Your task to perform on an android device: check the backup settings in the google photos Image 0: 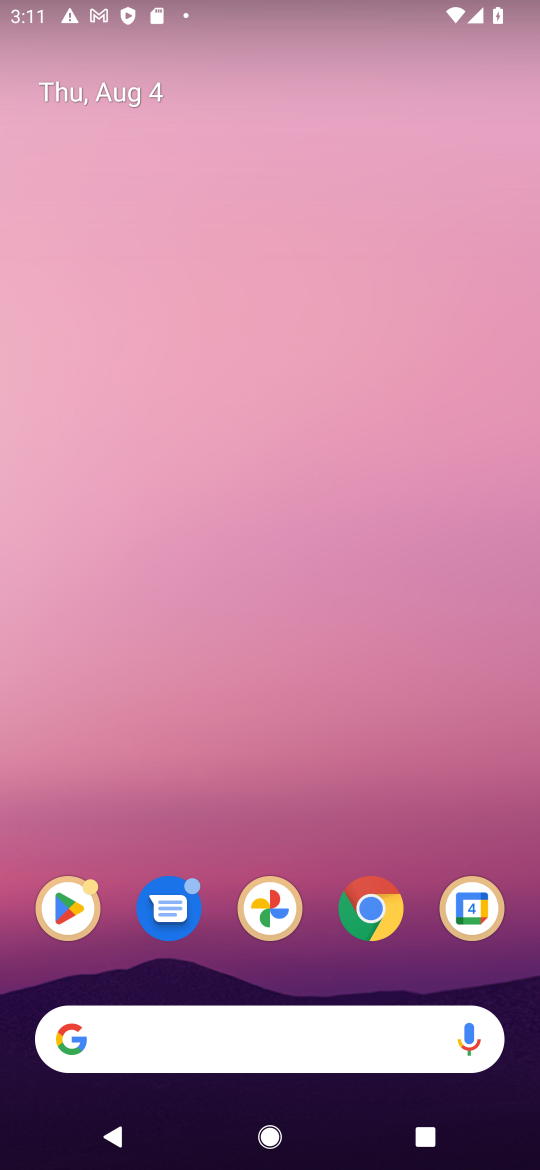
Step 0: drag from (218, 610) to (357, 45)
Your task to perform on an android device: check the backup settings in the google photos Image 1: 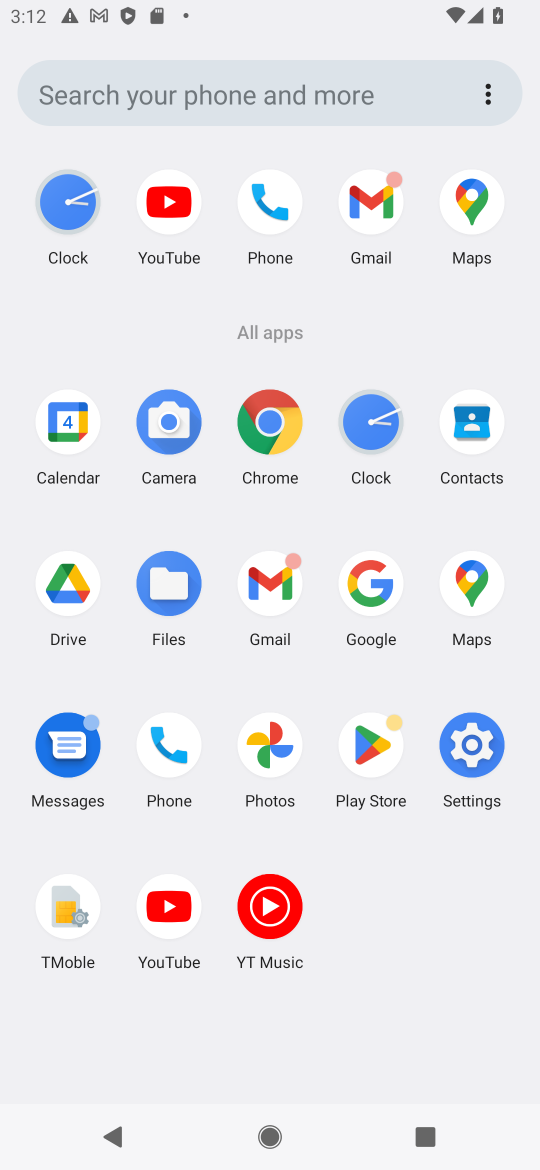
Step 1: click (276, 734)
Your task to perform on an android device: check the backup settings in the google photos Image 2: 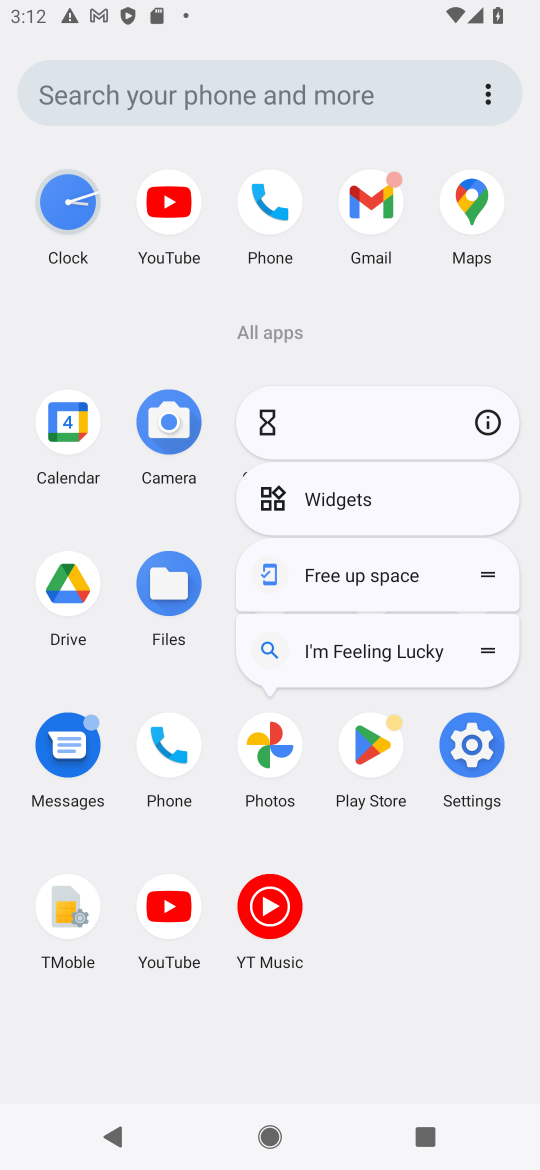
Step 2: click (280, 746)
Your task to perform on an android device: check the backup settings in the google photos Image 3: 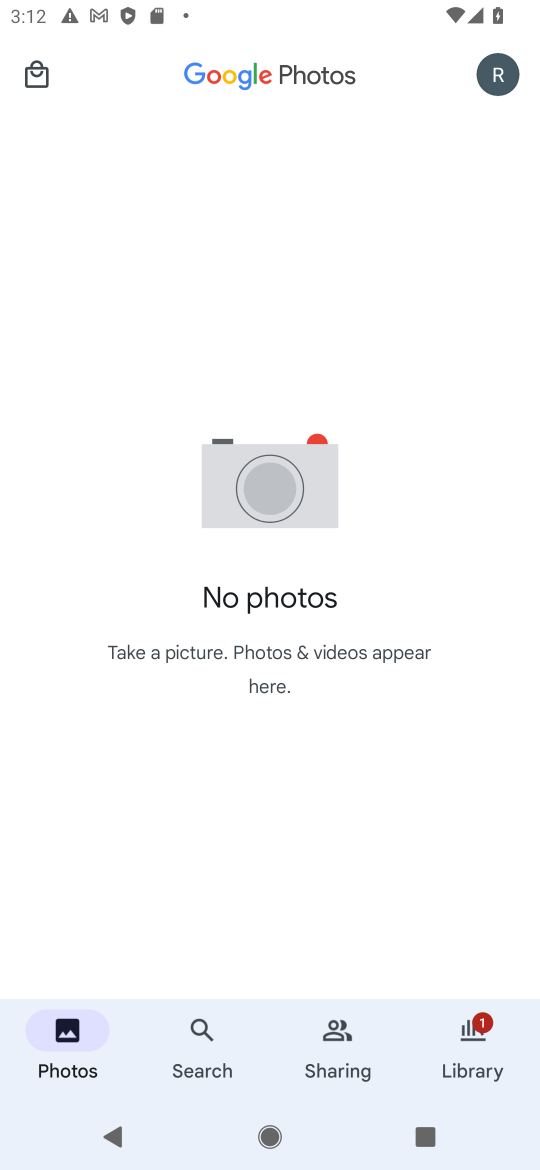
Step 3: click (508, 73)
Your task to perform on an android device: check the backup settings in the google photos Image 4: 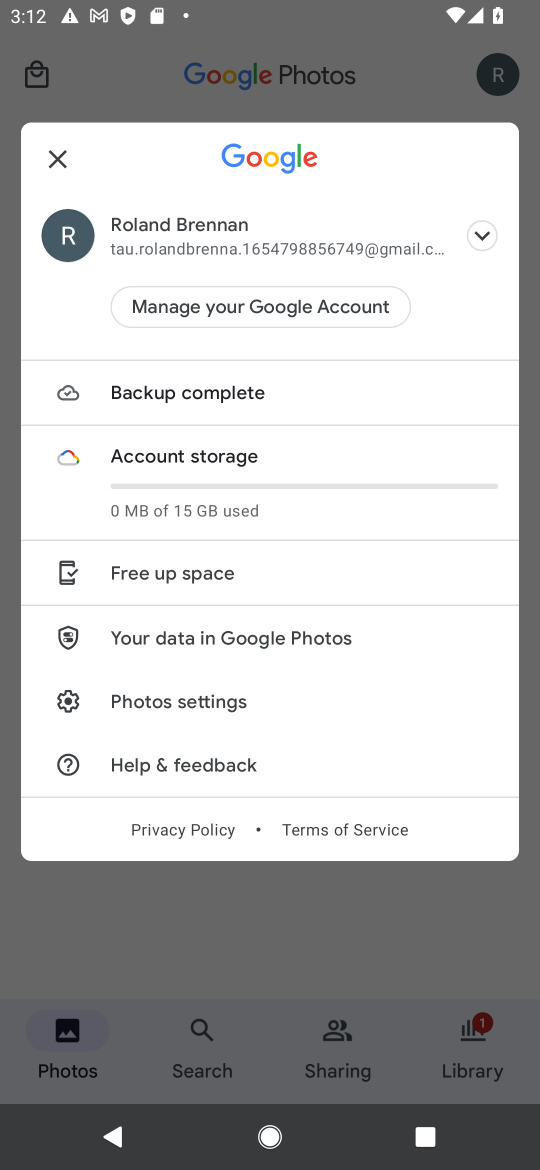
Step 4: click (229, 400)
Your task to perform on an android device: check the backup settings in the google photos Image 5: 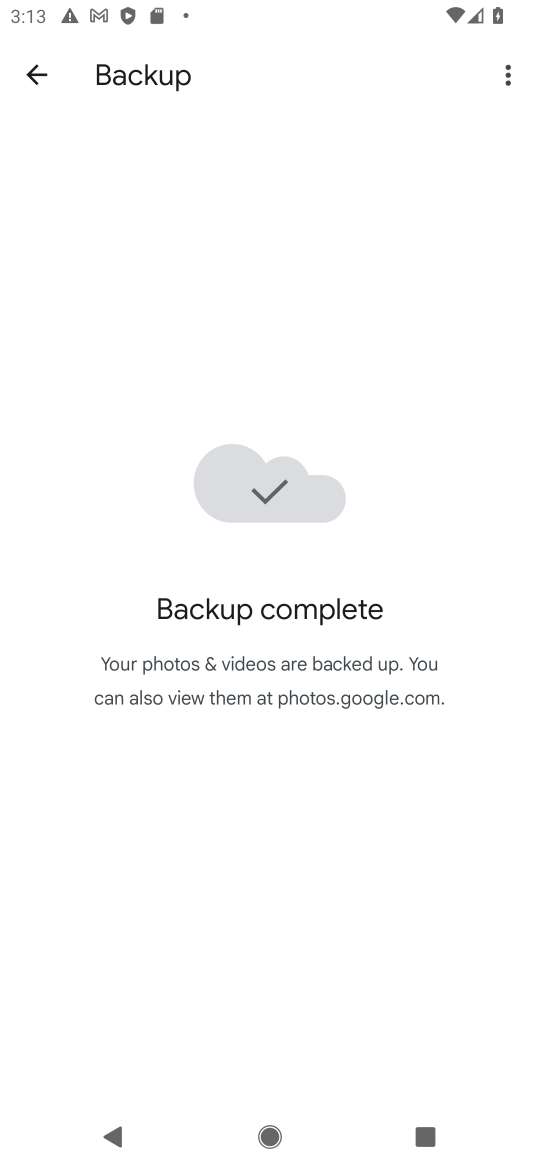
Step 5: task complete